Your task to perform on an android device: Go to Android settings Image 0: 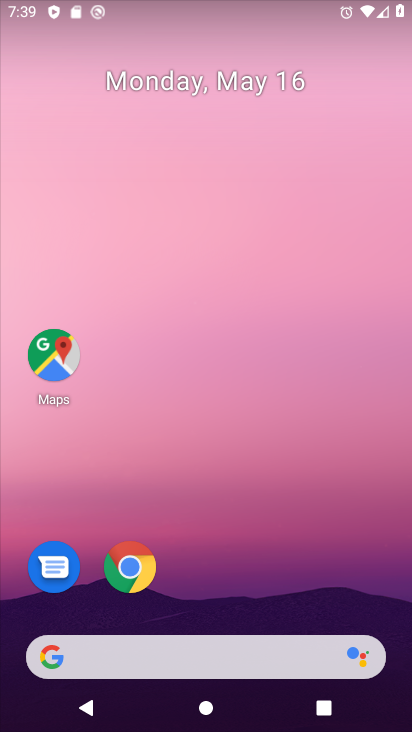
Step 0: drag from (385, 189) to (402, 93)
Your task to perform on an android device: Go to Android settings Image 1: 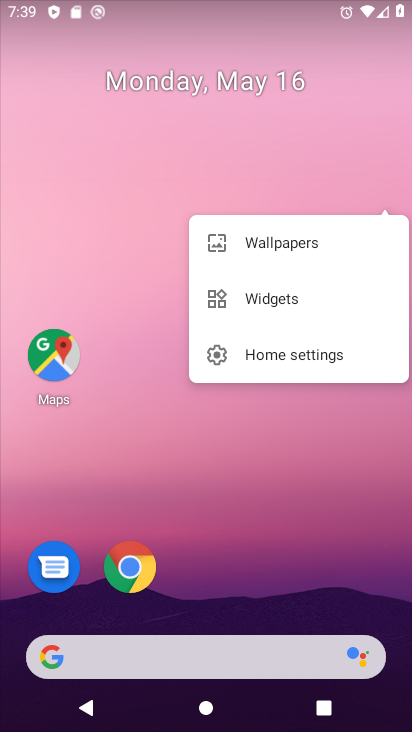
Step 1: drag from (194, 642) to (247, 186)
Your task to perform on an android device: Go to Android settings Image 2: 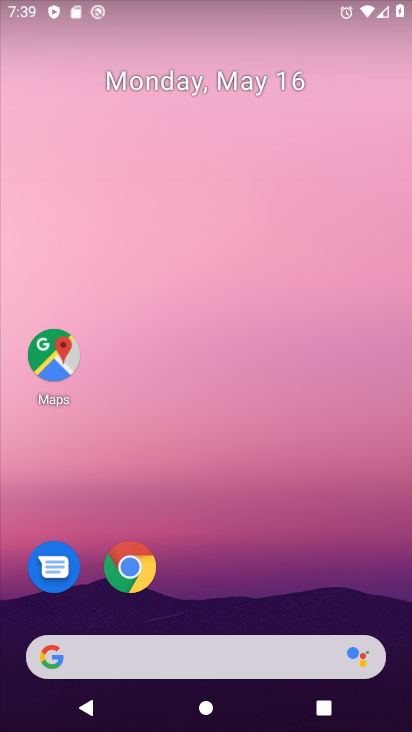
Step 2: drag from (260, 610) to (259, 147)
Your task to perform on an android device: Go to Android settings Image 3: 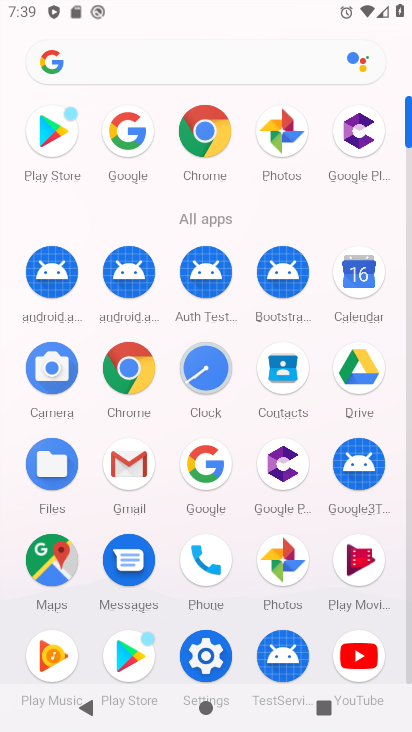
Step 3: click (201, 647)
Your task to perform on an android device: Go to Android settings Image 4: 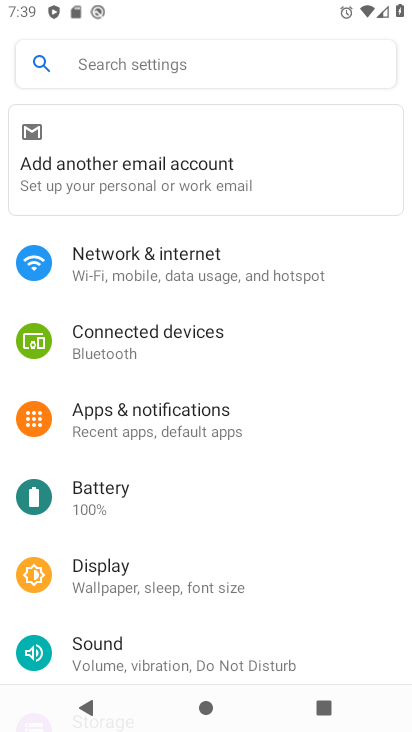
Step 4: task complete